Your task to perform on an android device: Search for vegetarian restaurants on Maps Image 0: 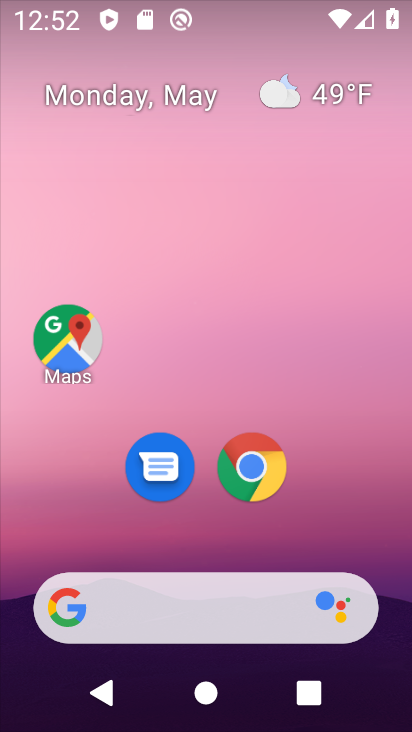
Step 0: drag from (369, 519) to (349, 151)
Your task to perform on an android device: Search for vegetarian restaurants on Maps Image 1: 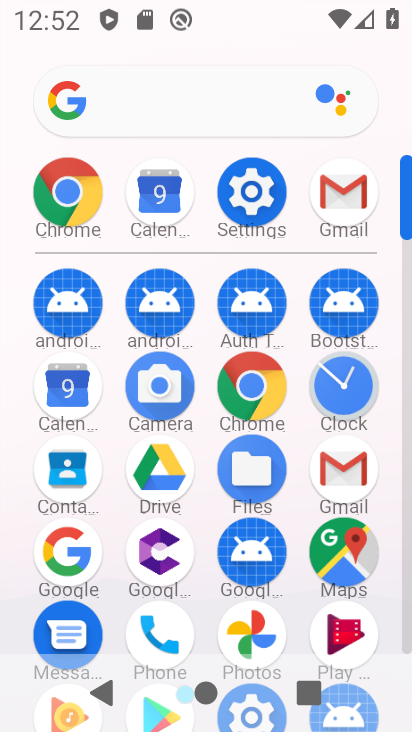
Step 1: click (331, 551)
Your task to perform on an android device: Search for vegetarian restaurants on Maps Image 2: 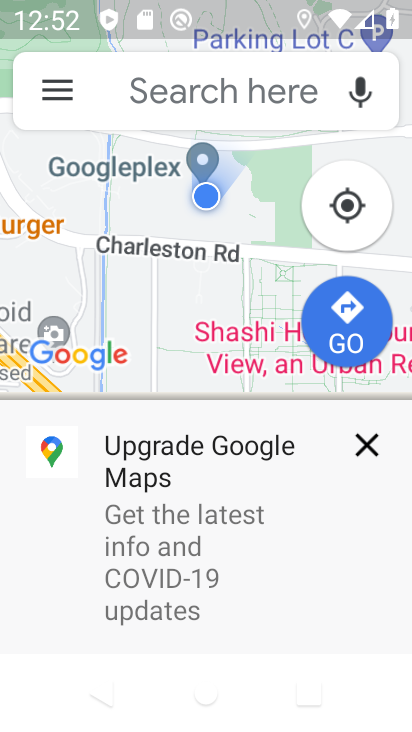
Step 2: click (181, 86)
Your task to perform on an android device: Search for vegetarian restaurants on Maps Image 3: 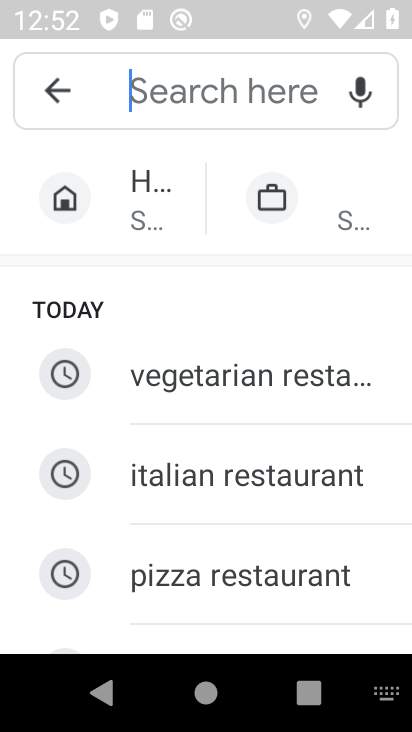
Step 3: click (237, 379)
Your task to perform on an android device: Search for vegetarian restaurants on Maps Image 4: 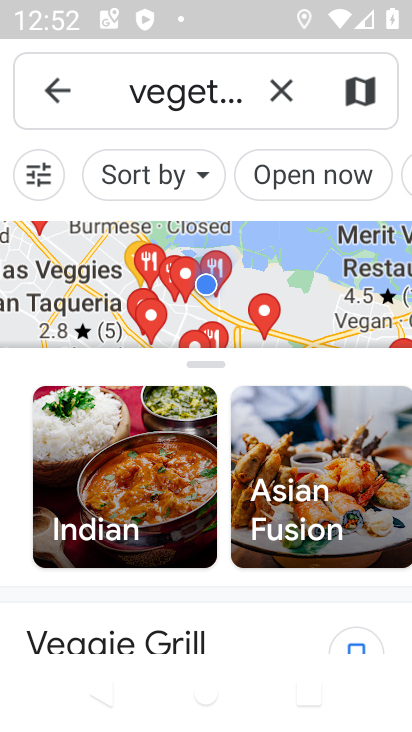
Step 4: task complete